Your task to perform on an android device: turn off notifications in google photos Image 0: 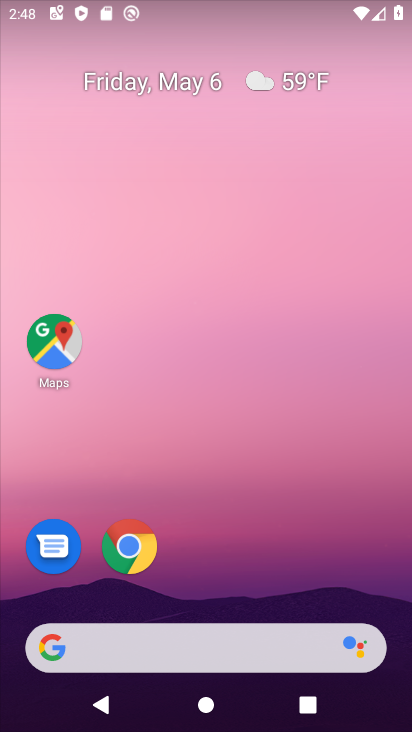
Step 0: drag from (272, 556) to (308, 223)
Your task to perform on an android device: turn off notifications in google photos Image 1: 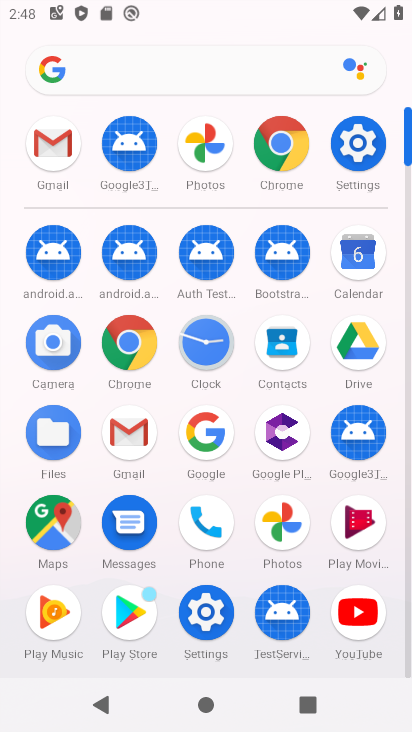
Step 1: click (358, 159)
Your task to perform on an android device: turn off notifications in google photos Image 2: 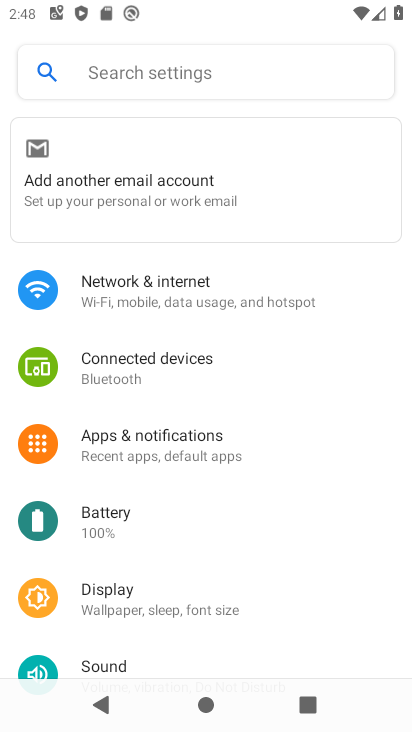
Step 2: click (203, 707)
Your task to perform on an android device: turn off notifications in google photos Image 3: 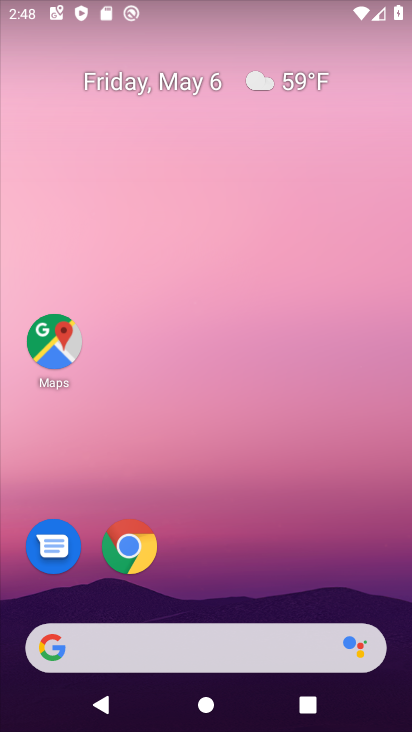
Step 3: drag from (228, 462) to (271, 159)
Your task to perform on an android device: turn off notifications in google photos Image 4: 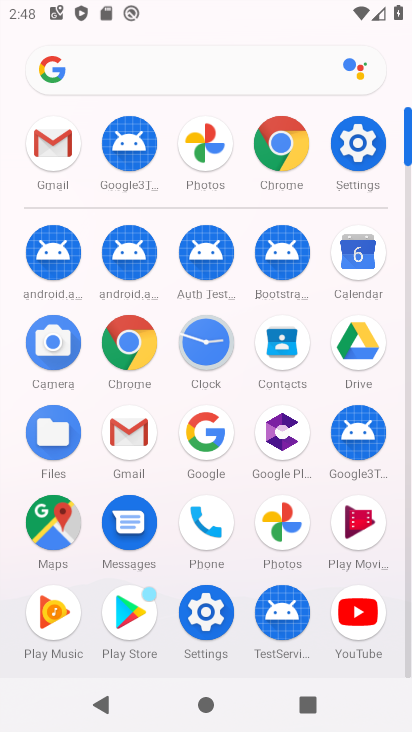
Step 4: click (209, 154)
Your task to perform on an android device: turn off notifications in google photos Image 5: 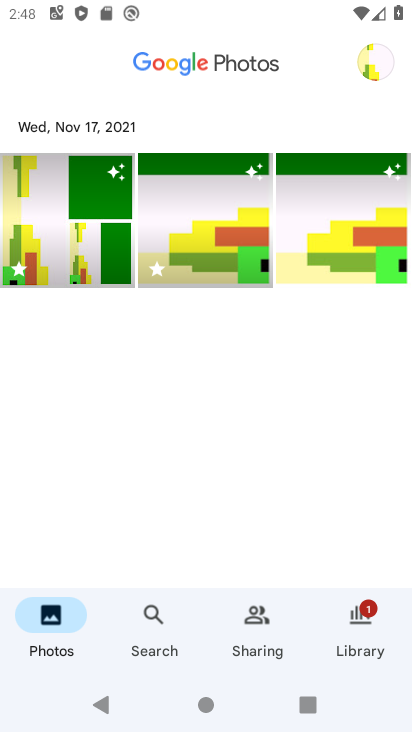
Step 5: click (383, 54)
Your task to perform on an android device: turn off notifications in google photos Image 6: 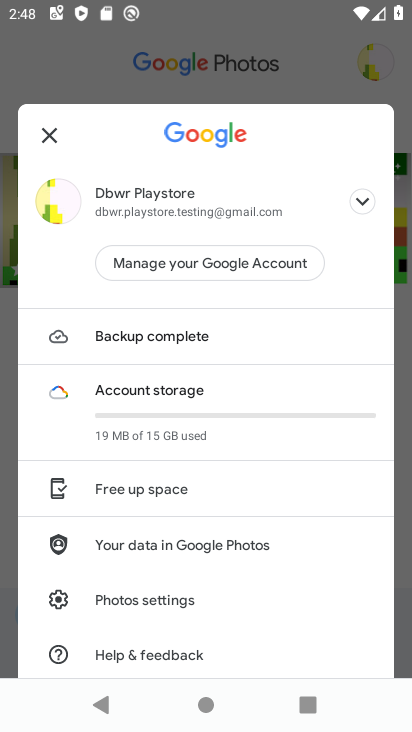
Step 6: click (174, 602)
Your task to perform on an android device: turn off notifications in google photos Image 7: 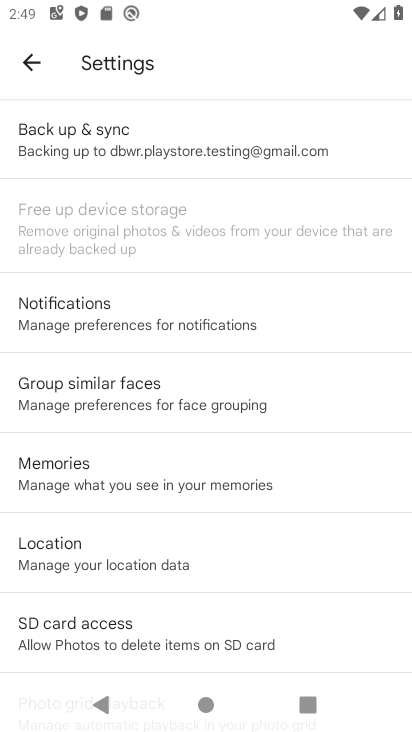
Step 7: click (149, 317)
Your task to perform on an android device: turn off notifications in google photos Image 8: 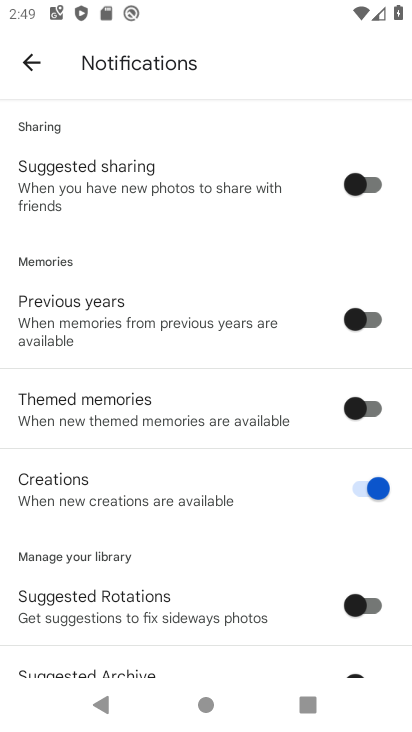
Step 8: drag from (220, 598) to (268, 254)
Your task to perform on an android device: turn off notifications in google photos Image 9: 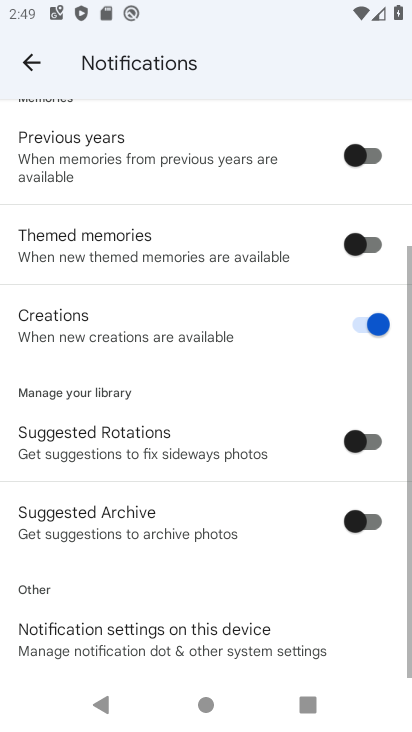
Step 9: drag from (205, 572) to (234, 399)
Your task to perform on an android device: turn off notifications in google photos Image 10: 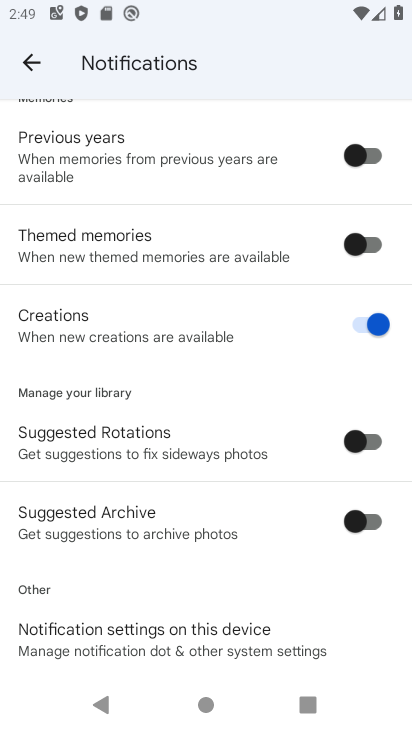
Step 10: click (229, 644)
Your task to perform on an android device: turn off notifications in google photos Image 11: 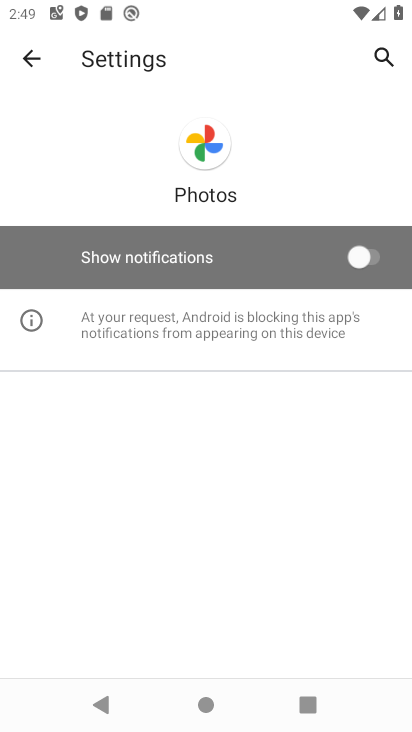
Step 11: task complete